Your task to perform on an android device: turn on location history Image 0: 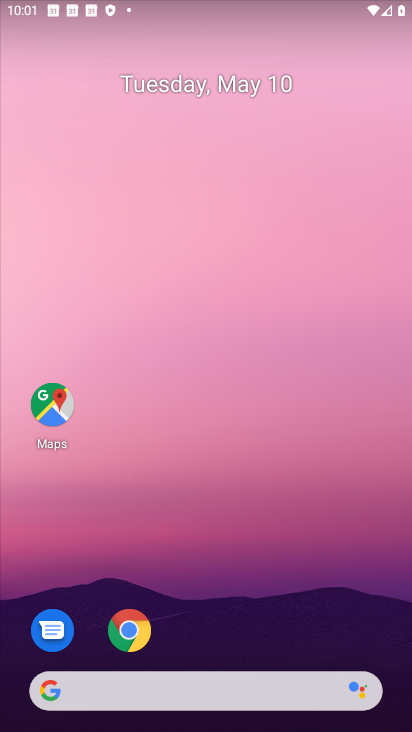
Step 0: click (63, 406)
Your task to perform on an android device: turn on location history Image 1: 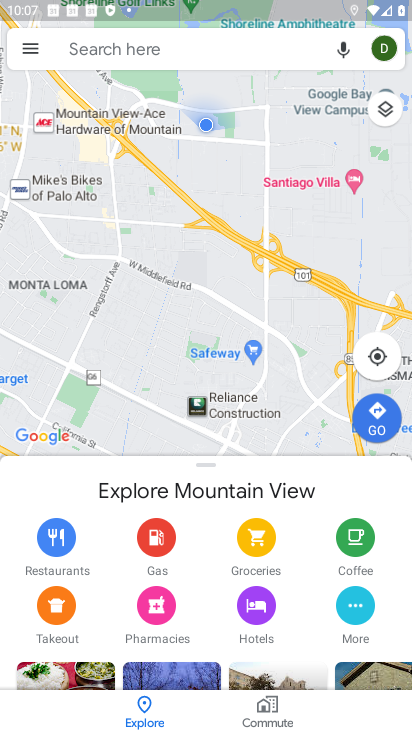
Step 1: click (24, 36)
Your task to perform on an android device: turn on location history Image 2: 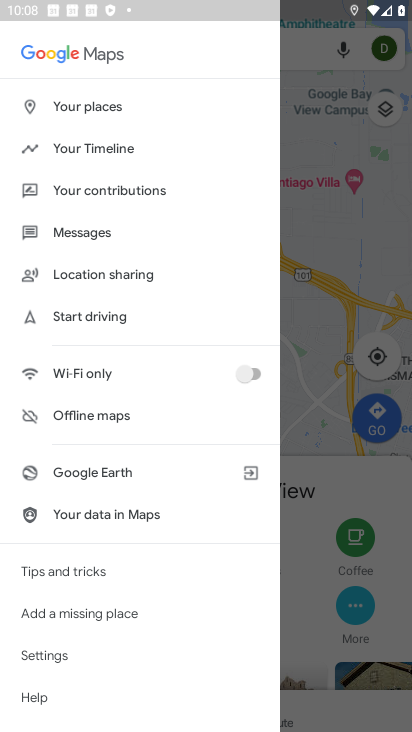
Step 2: click (55, 656)
Your task to perform on an android device: turn on location history Image 3: 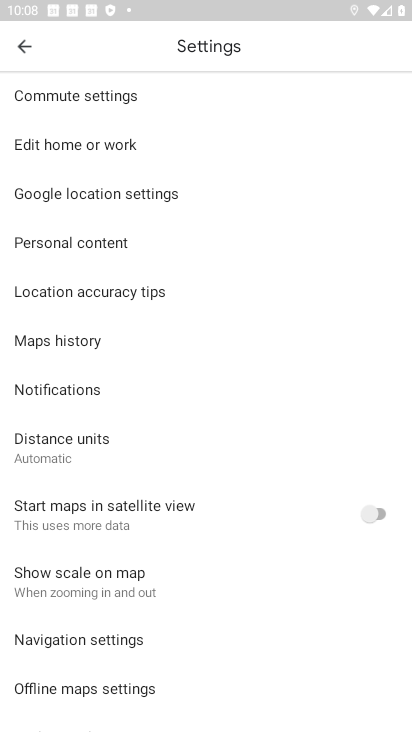
Step 3: click (187, 197)
Your task to perform on an android device: turn on location history Image 4: 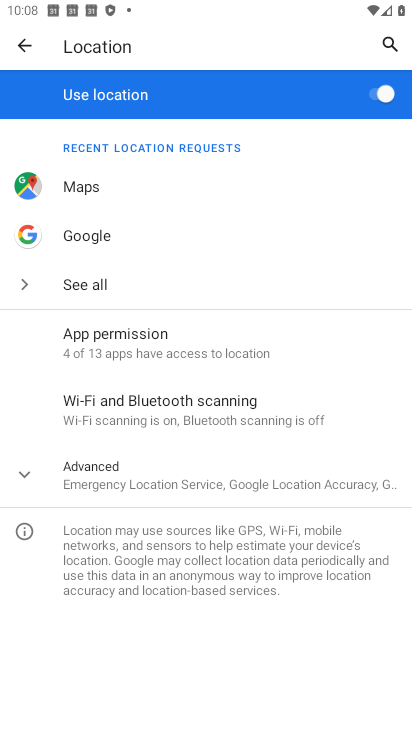
Step 4: click (156, 465)
Your task to perform on an android device: turn on location history Image 5: 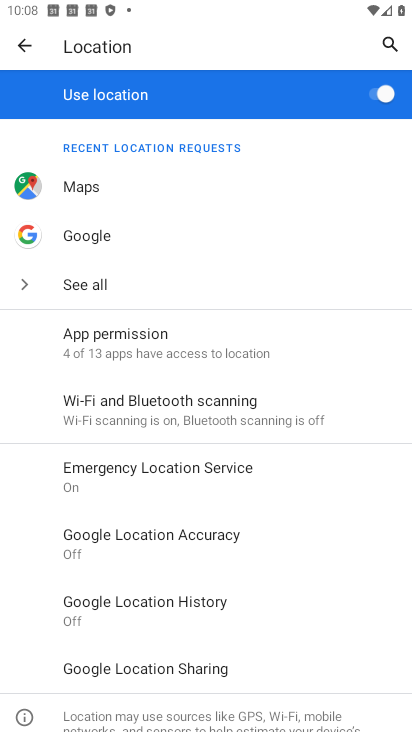
Step 5: click (206, 604)
Your task to perform on an android device: turn on location history Image 6: 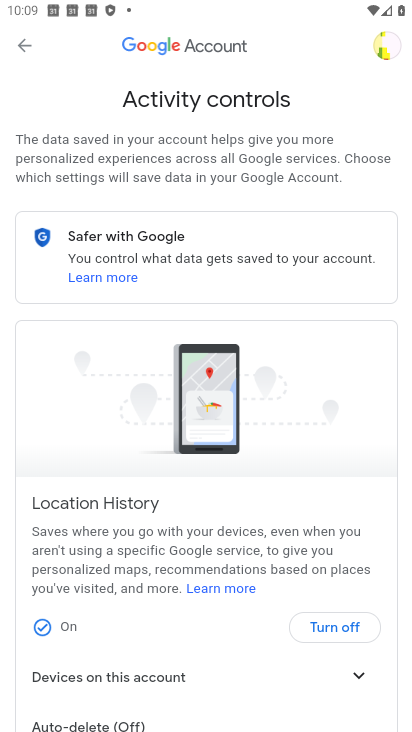
Step 6: click (332, 635)
Your task to perform on an android device: turn on location history Image 7: 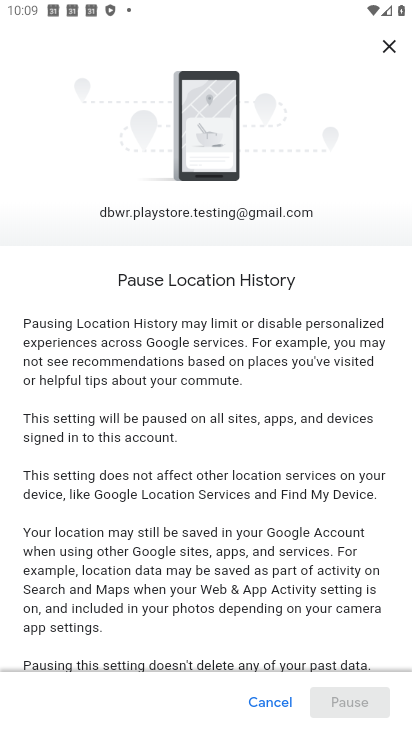
Step 7: drag from (305, 610) to (269, 129)
Your task to perform on an android device: turn on location history Image 8: 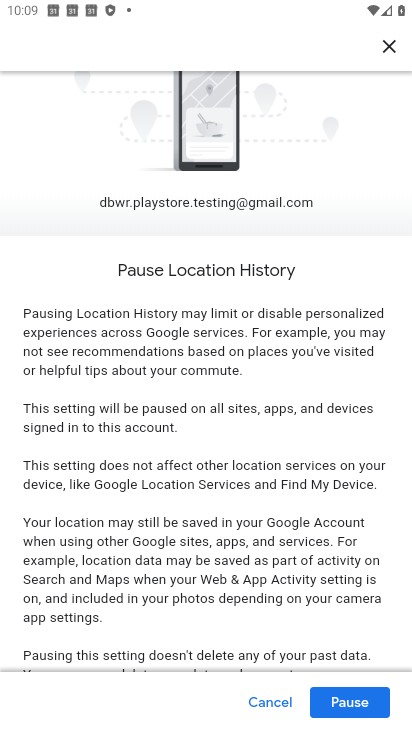
Step 8: click (345, 706)
Your task to perform on an android device: turn on location history Image 9: 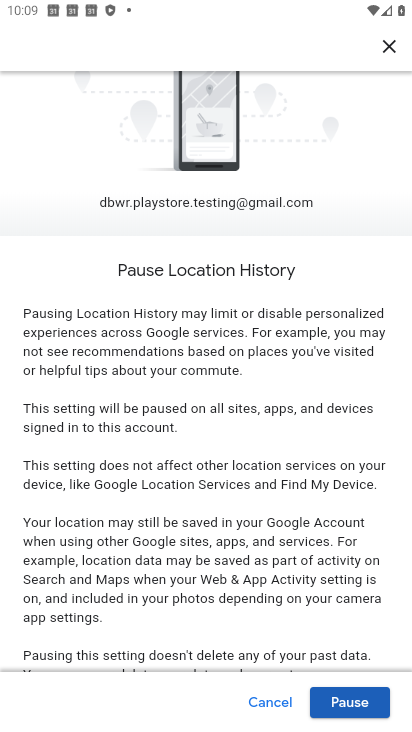
Step 9: click (342, 707)
Your task to perform on an android device: turn on location history Image 10: 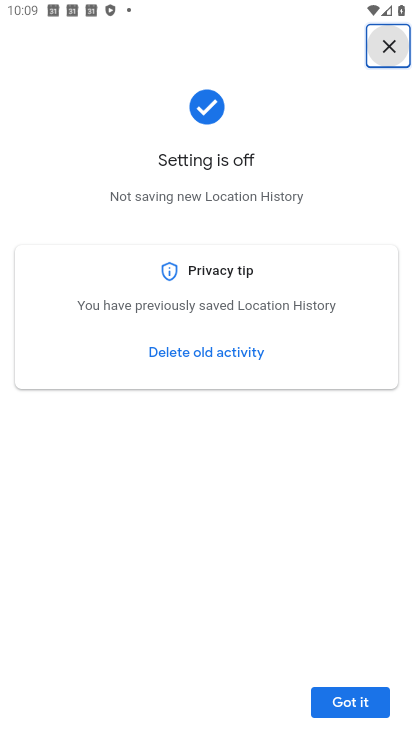
Step 10: task complete